Your task to perform on an android device: Open Yahoo.com Image 0: 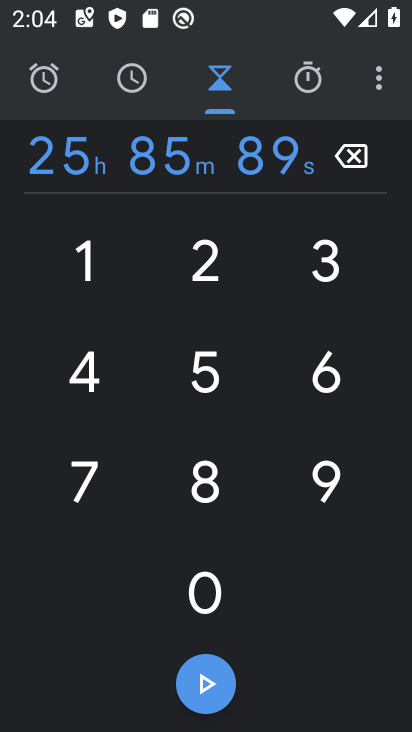
Step 0: press home button
Your task to perform on an android device: Open Yahoo.com Image 1: 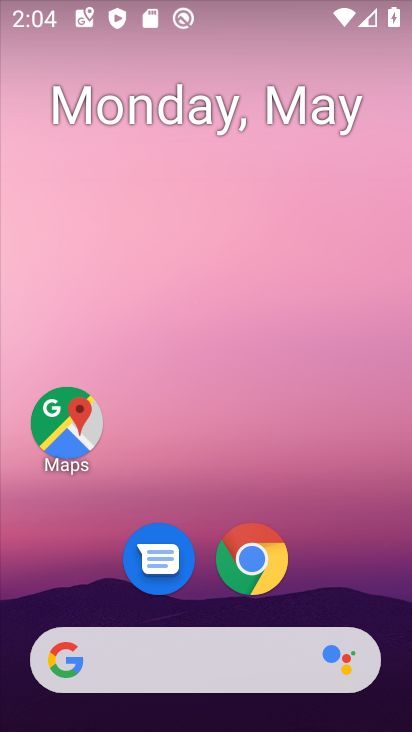
Step 1: click (155, 663)
Your task to perform on an android device: Open Yahoo.com Image 2: 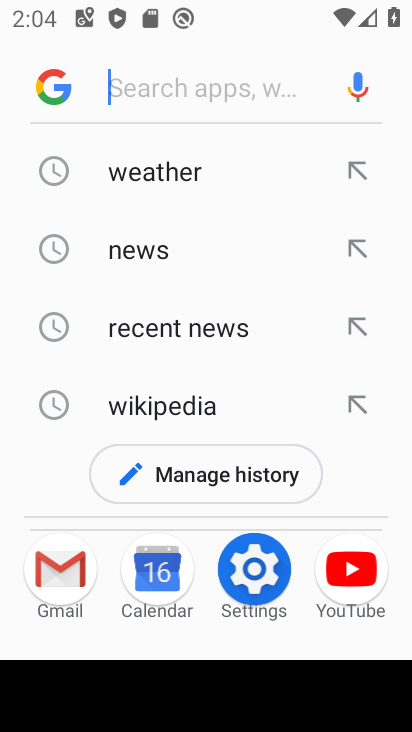
Step 2: type "yahoo.com"
Your task to perform on an android device: Open Yahoo.com Image 3: 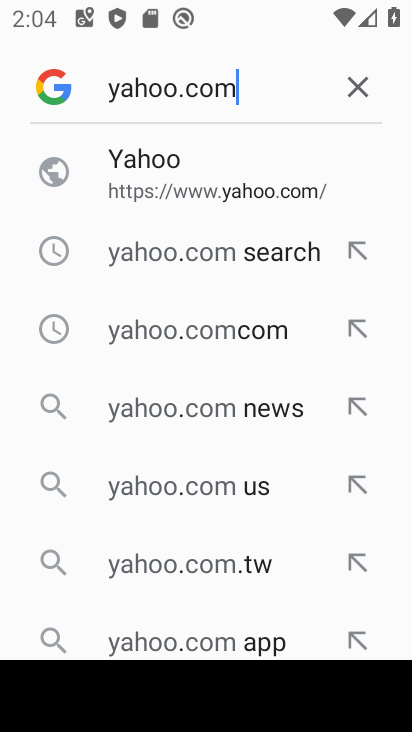
Step 3: click (230, 174)
Your task to perform on an android device: Open Yahoo.com Image 4: 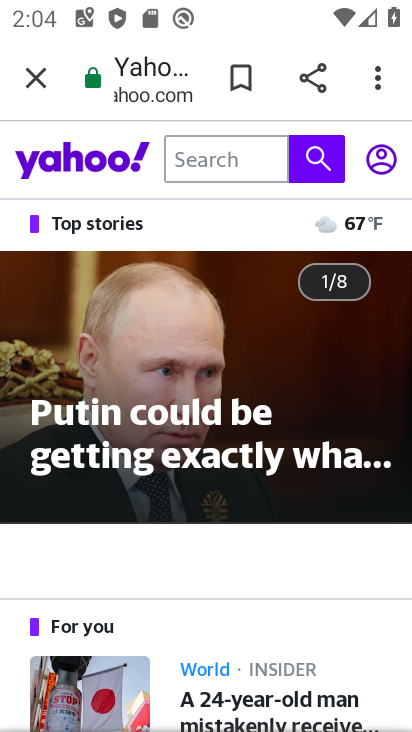
Step 4: task complete